Your task to perform on an android device: Go to ESPN.com Image 0: 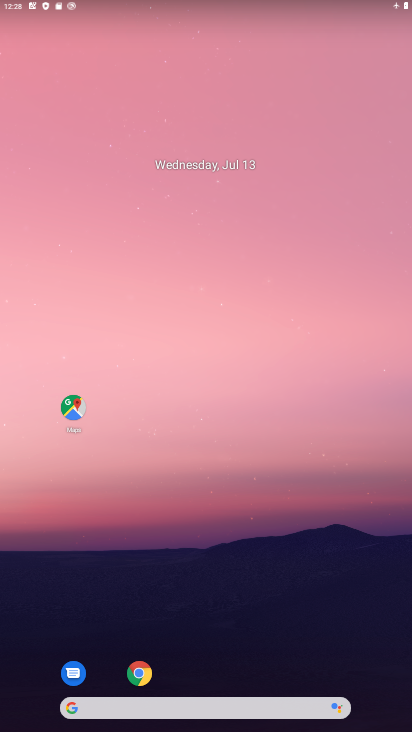
Step 0: click (254, 711)
Your task to perform on an android device: Go to ESPN.com Image 1: 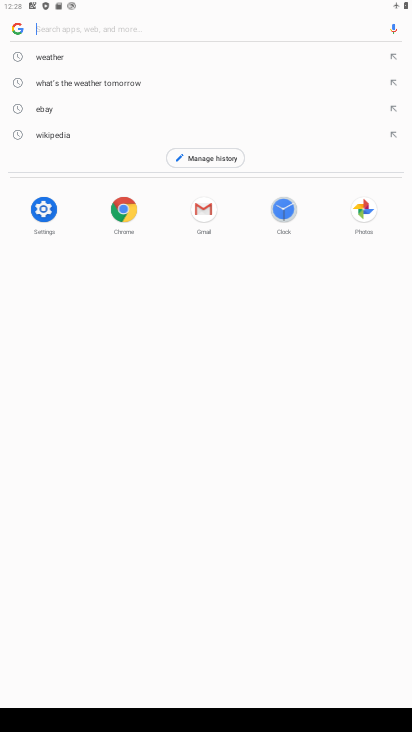
Step 1: type "espn.com"
Your task to perform on an android device: Go to ESPN.com Image 2: 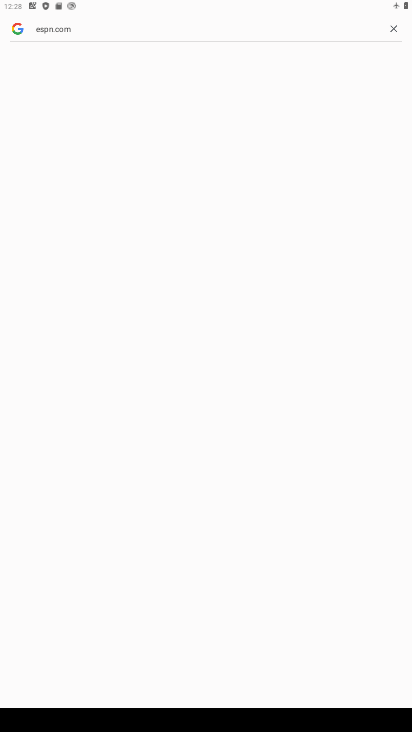
Step 2: task complete